Your task to perform on an android device: uninstall "Google Find My Device" Image 0: 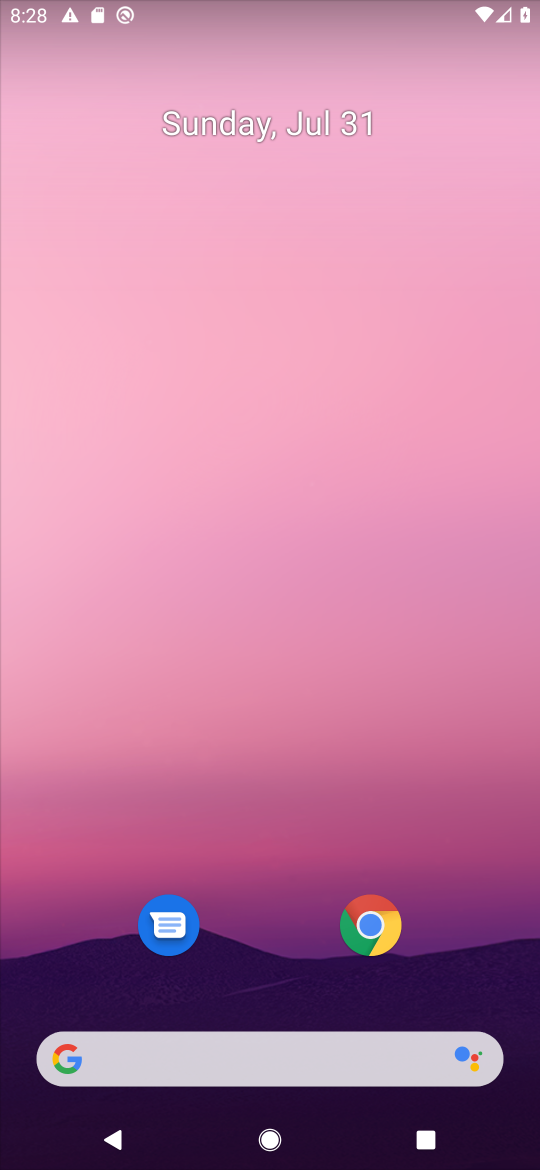
Step 0: drag from (258, 946) to (152, 6)
Your task to perform on an android device: uninstall "Google Find My Device" Image 1: 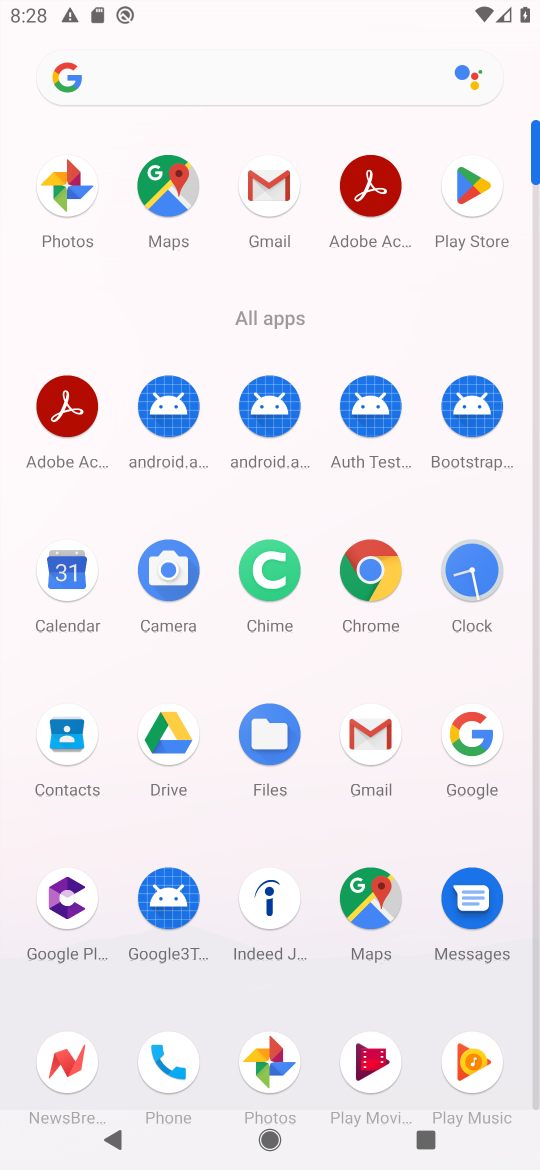
Step 1: click (472, 184)
Your task to perform on an android device: uninstall "Google Find My Device" Image 2: 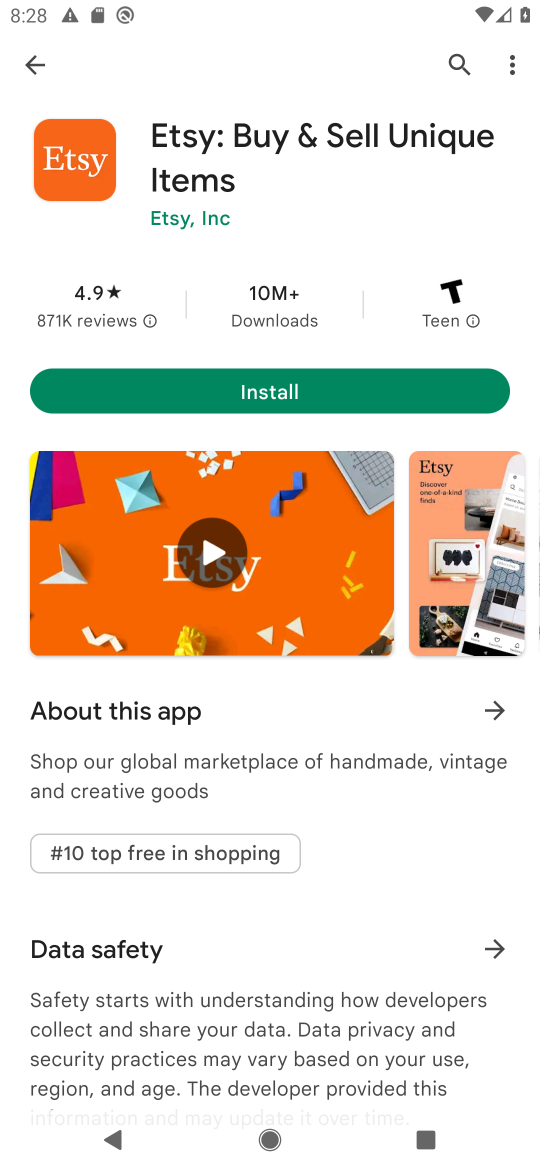
Step 2: click (458, 64)
Your task to perform on an android device: uninstall "Google Find My Device" Image 3: 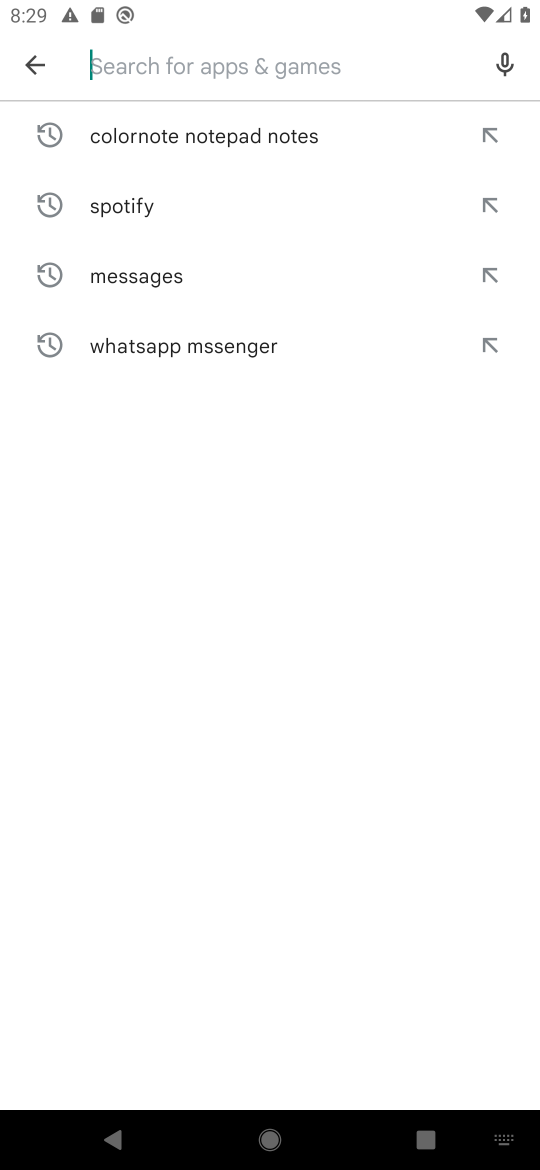
Step 3: type "google find my device"
Your task to perform on an android device: uninstall "Google Find My Device" Image 4: 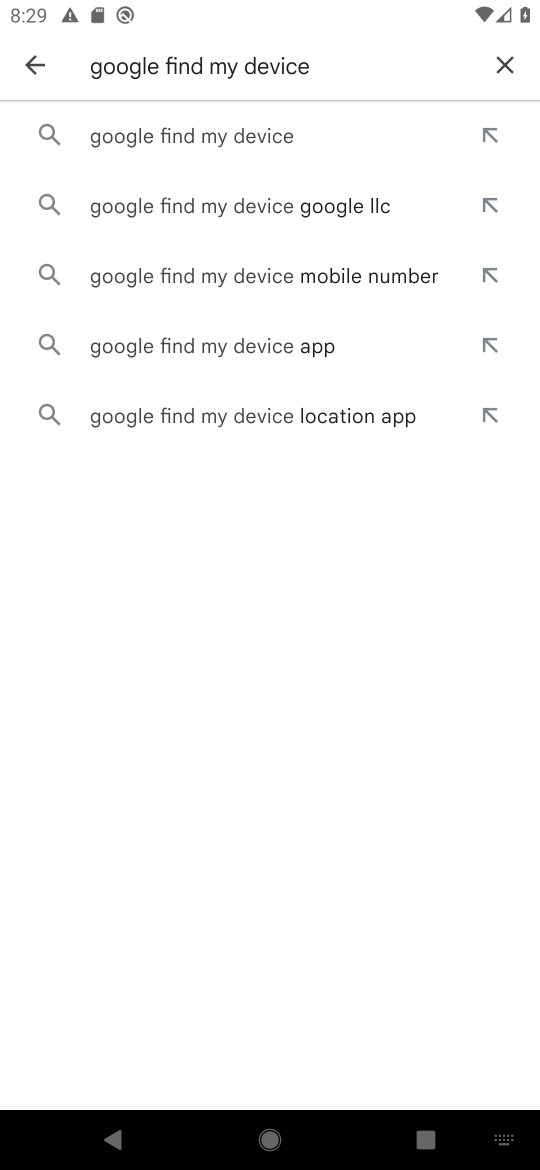
Step 4: click (267, 132)
Your task to perform on an android device: uninstall "Google Find My Device" Image 5: 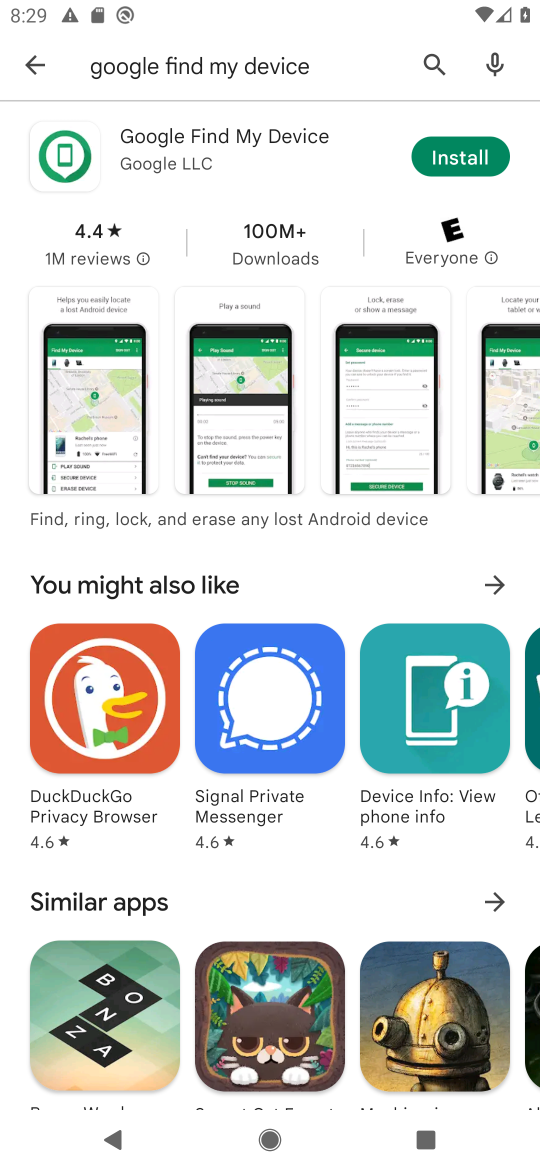
Step 5: click (267, 132)
Your task to perform on an android device: uninstall "Google Find My Device" Image 6: 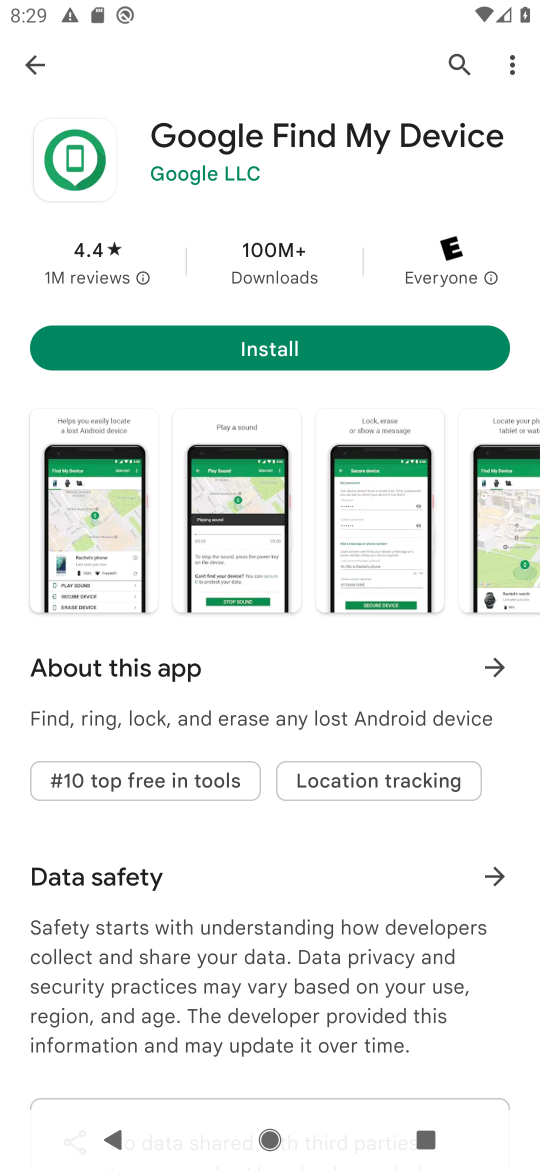
Step 6: task complete